Your task to perform on an android device: move an email to a new category in the gmail app Image 0: 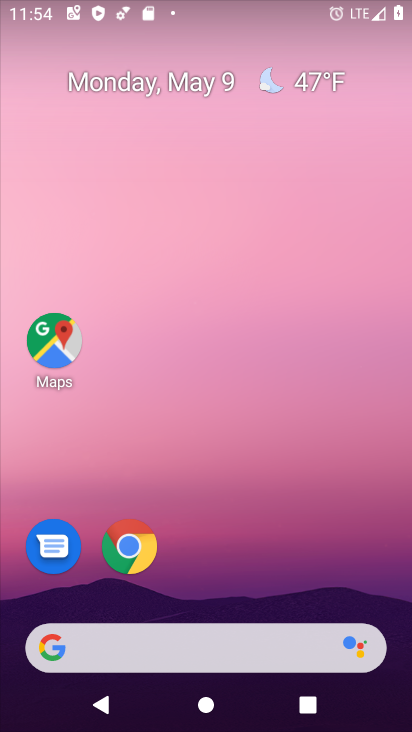
Step 0: drag from (332, 607) to (335, 88)
Your task to perform on an android device: move an email to a new category in the gmail app Image 1: 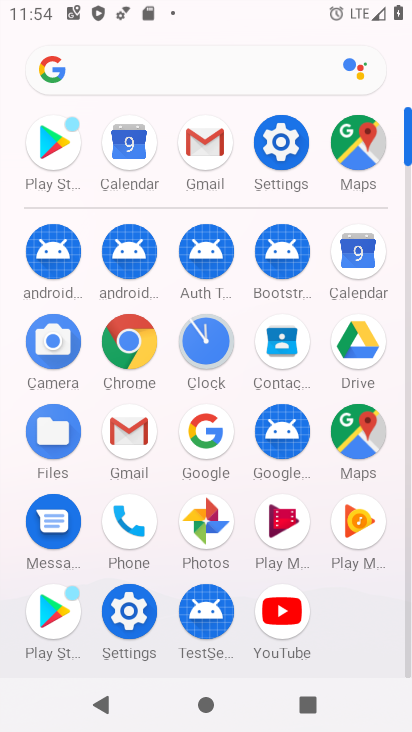
Step 1: click (204, 156)
Your task to perform on an android device: move an email to a new category in the gmail app Image 2: 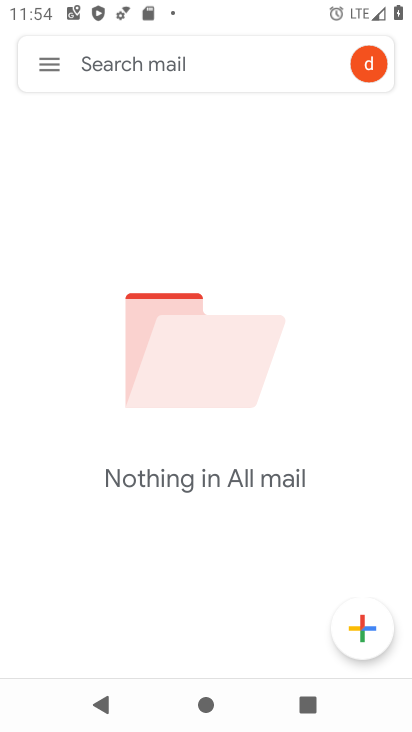
Step 2: task complete